Your task to perform on an android device: Open sound settings Image 0: 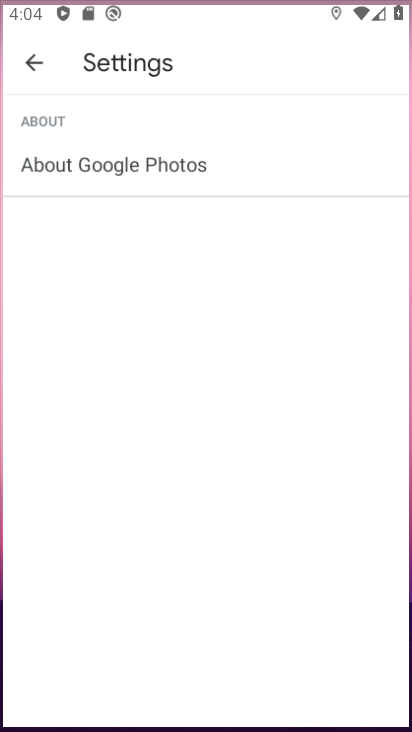
Step 0: drag from (227, 674) to (119, 262)
Your task to perform on an android device: Open sound settings Image 1: 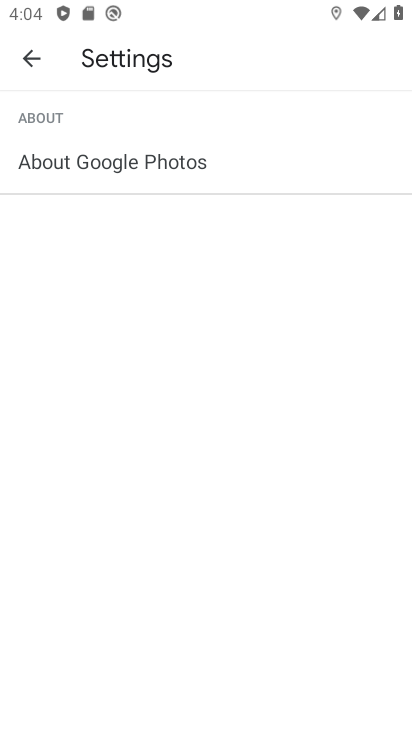
Step 1: click (28, 59)
Your task to perform on an android device: Open sound settings Image 2: 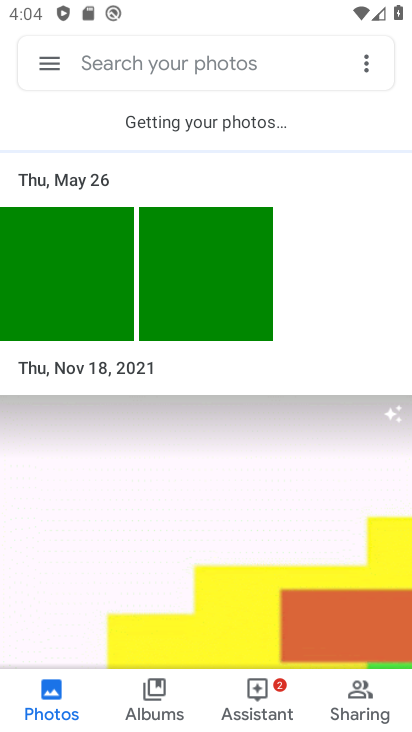
Step 2: press back button
Your task to perform on an android device: Open sound settings Image 3: 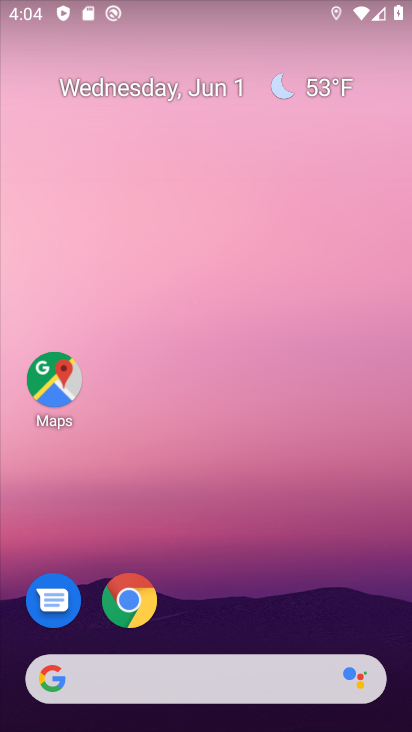
Step 3: drag from (226, 633) to (123, 121)
Your task to perform on an android device: Open sound settings Image 4: 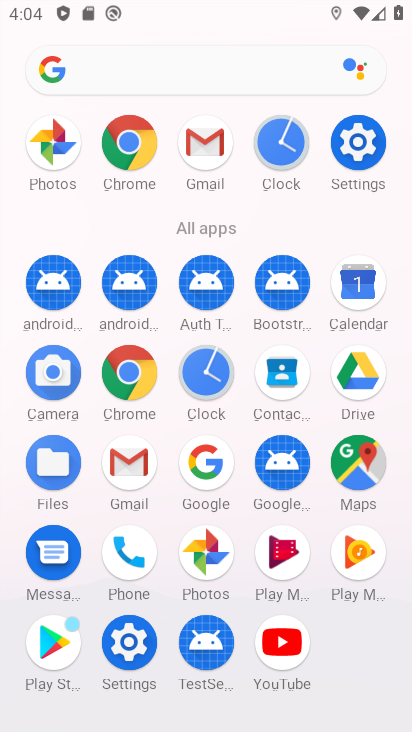
Step 4: click (147, 663)
Your task to perform on an android device: Open sound settings Image 5: 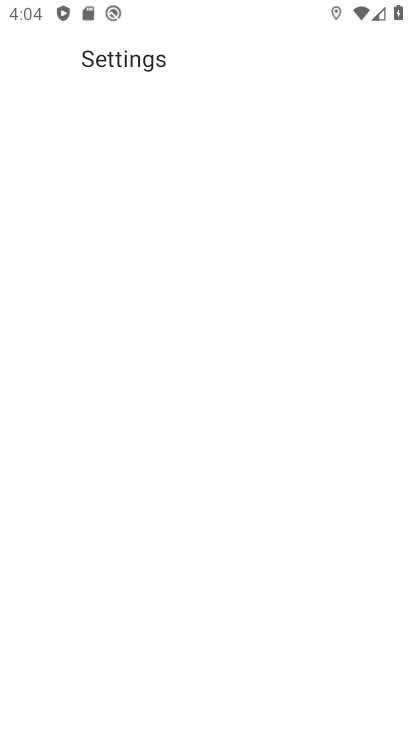
Step 5: click (133, 645)
Your task to perform on an android device: Open sound settings Image 6: 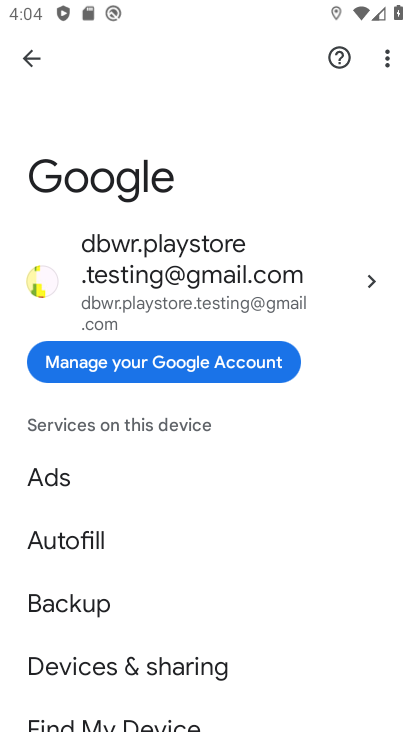
Step 6: press back button
Your task to perform on an android device: Open sound settings Image 7: 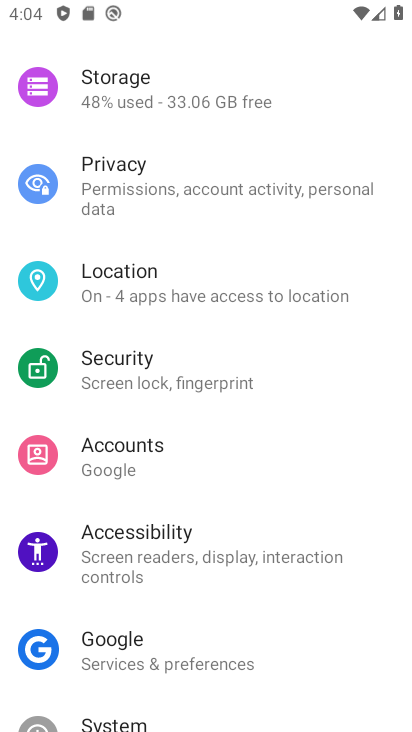
Step 7: drag from (120, 185) to (181, 605)
Your task to perform on an android device: Open sound settings Image 8: 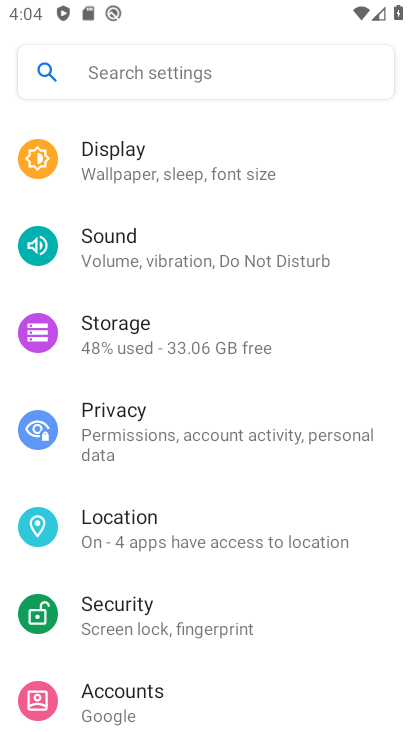
Step 8: drag from (167, 295) to (204, 629)
Your task to perform on an android device: Open sound settings Image 9: 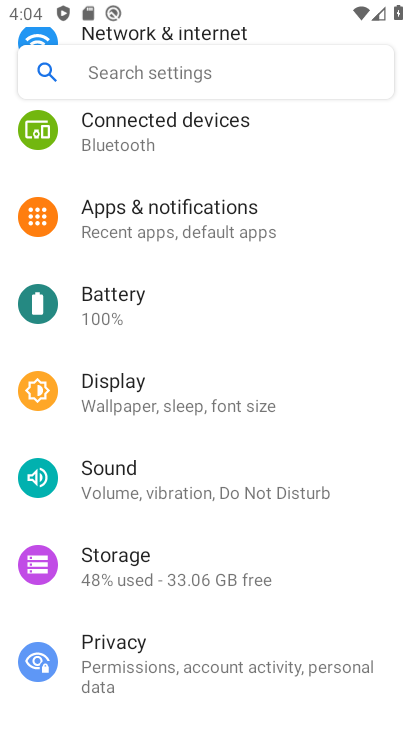
Step 9: click (124, 480)
Your task to perform on an android device: Open sound settings Image 10: 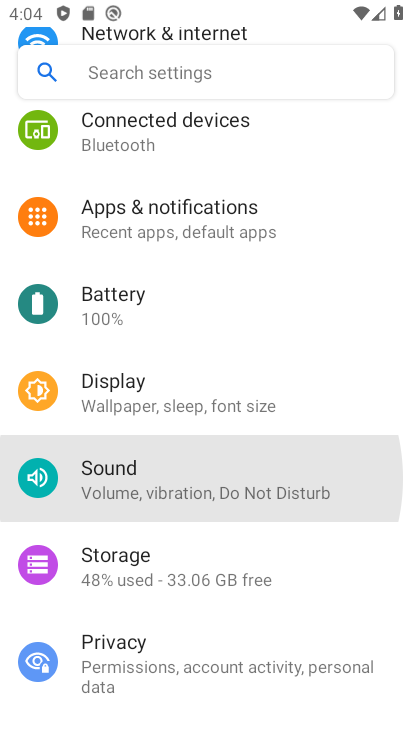
Step 10: click (124, 480)
Your task to perform on an android device: Open sound settings Image 11: 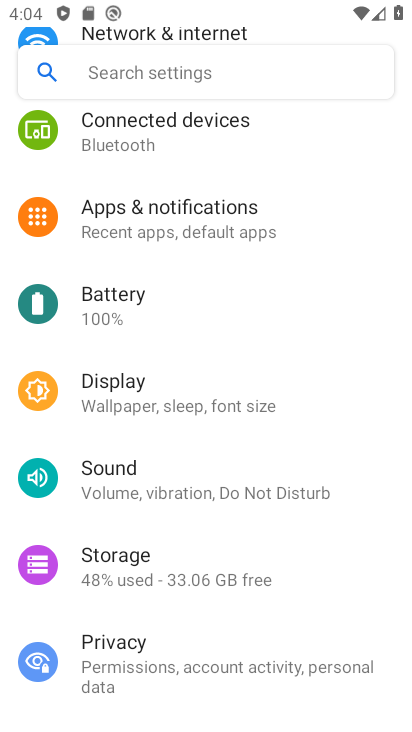
Step 11: click (124, 480)
Your task to perform on an android device: Open sound settings Image 12: 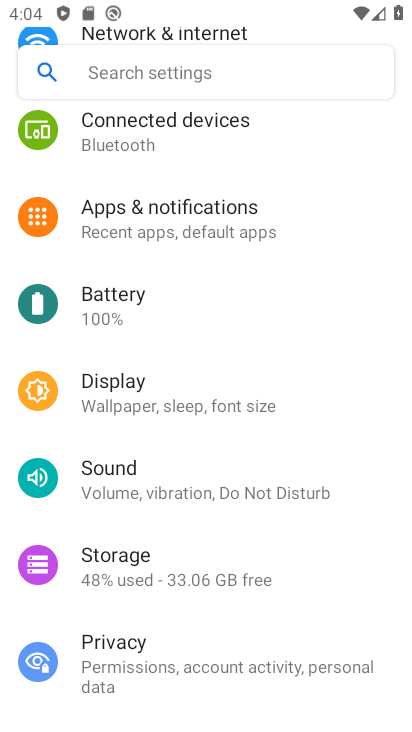
Step 12: click (124, 480)
Your task to perform on an android device: Open sound settings Image 13: 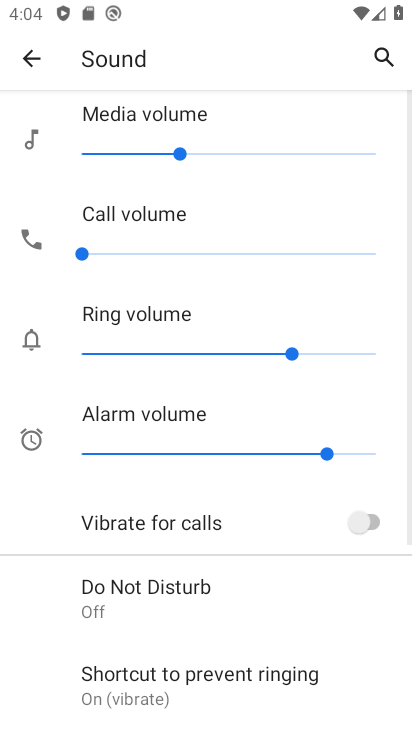
Step 13: task complete